Your task to perform on an android device: View the shopping cart on bestbuy.com. Search for razer nari on bestbuy.com, select the first entry, and add it to the cart. Image 0: 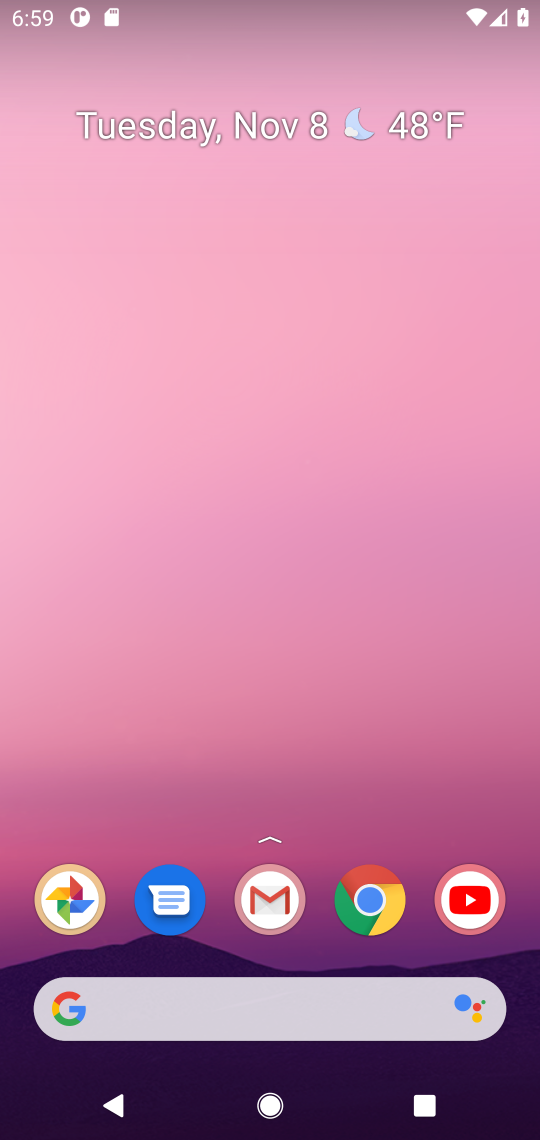
Step 0: drag from (234, 946) to (248, 94)
Your task to perform on an android device: View the shopping cart on bestbuy.com. Search for razer nari on bestbuy.com, select the first entry, and add it to the cart. Image 1: 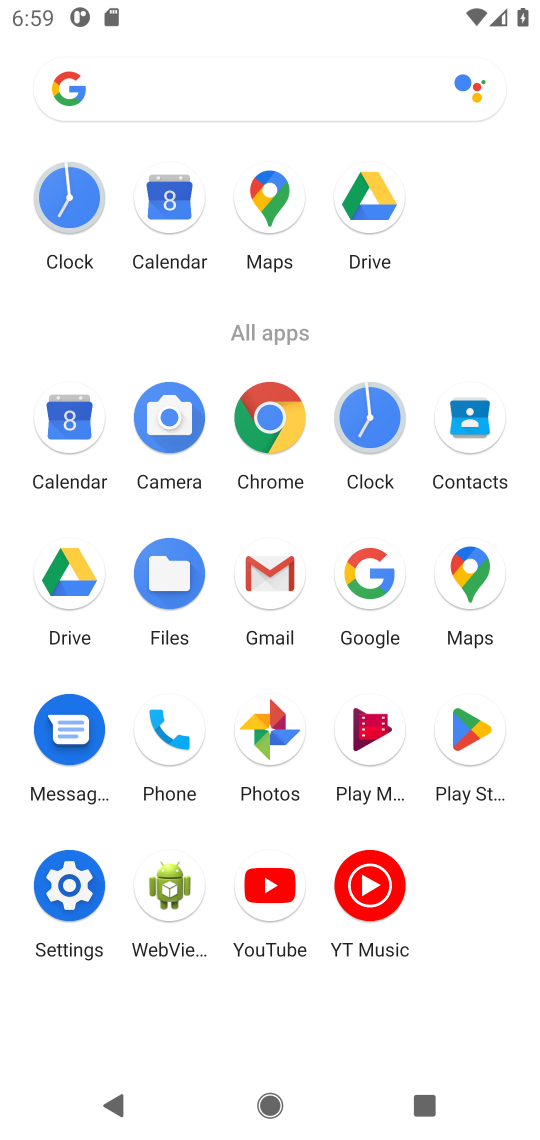
Step 1: click (363, 557)
Your task to perform on an android device: View the shopping cart on bestbuy.com. Search for razer nari on bestbuy.com, select the first entry, and add it to the cart. Image 2: 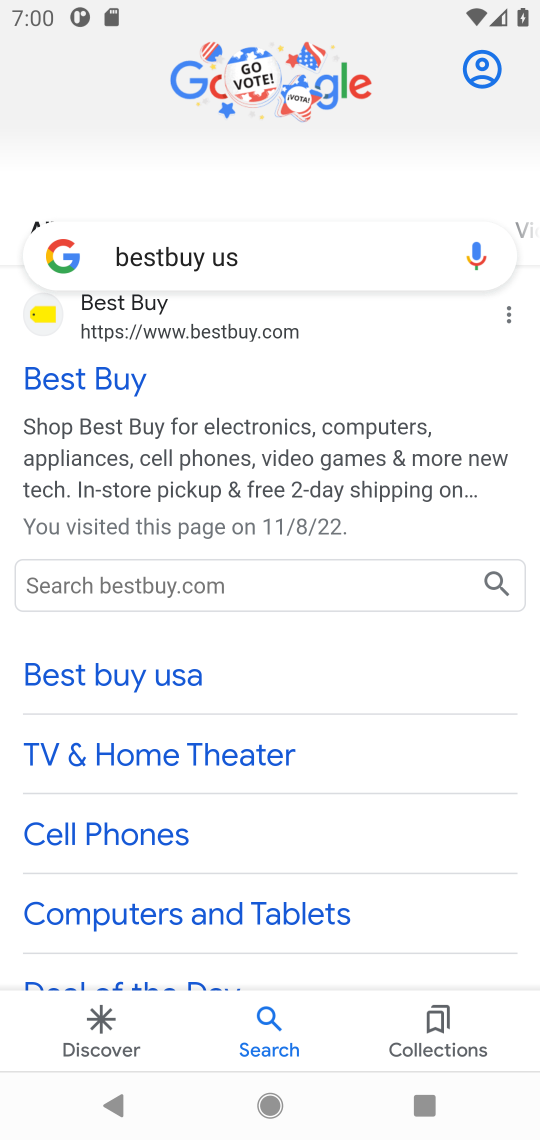
Step 2: click (53, 328)
Your task to perform on an android device: View the shopping cart on bestbuy.com. Search for razer nari on bestbuy.com, select the first entry, and add it to the cart. Image 3: 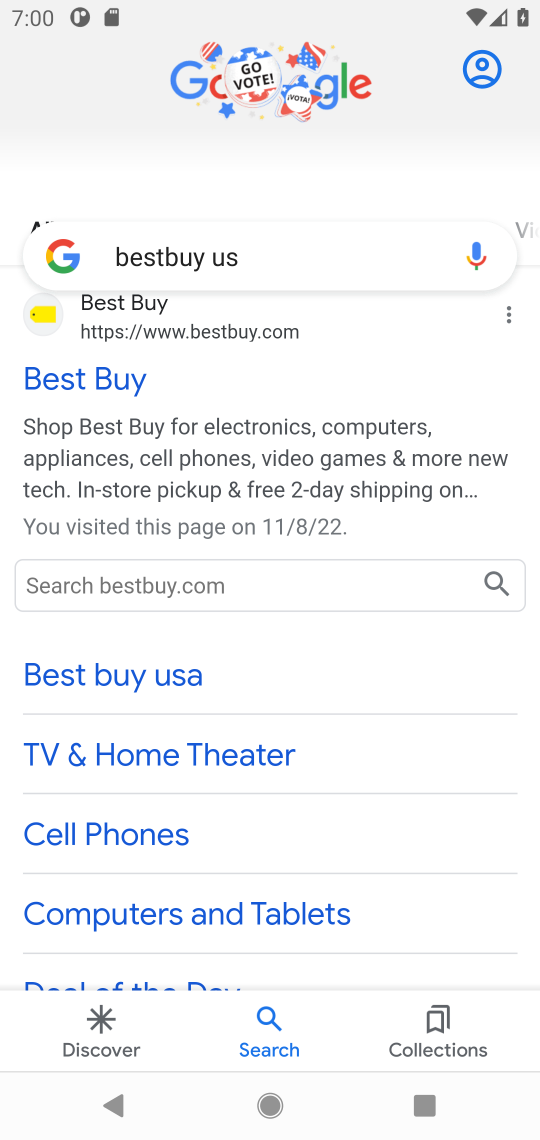
Step 3: click (47, 304)
Your task to perform on an android device: View the shopping cart on bestbuy.com. Search for razer nari on bestbuy.com, select the first entry, and add it to the cart. Image 4: 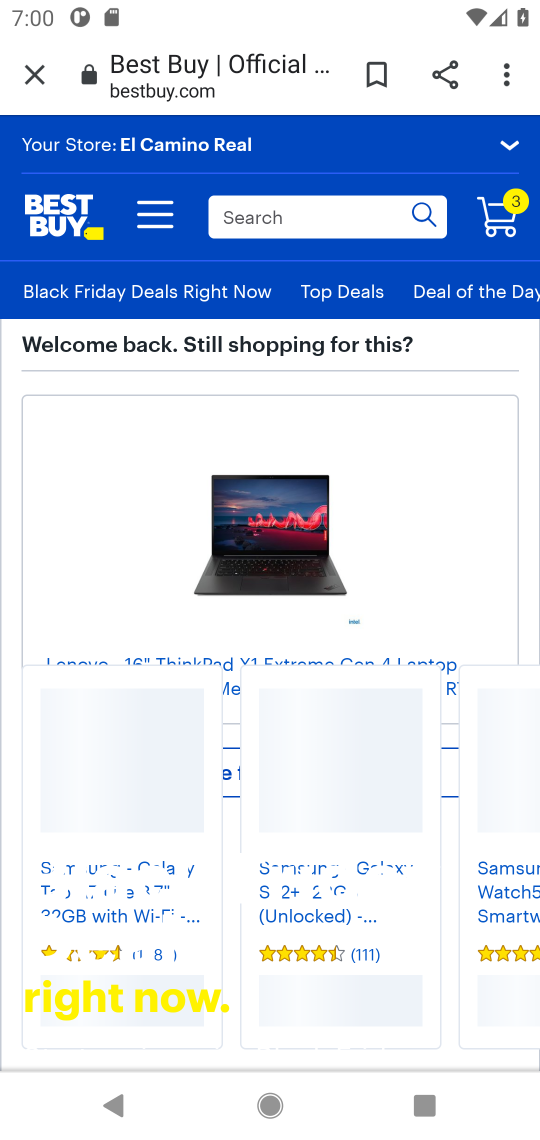
Step 4: click (337, 205)
Your task to perform on an android device: View the shopping cart on bestbuy.com. Search for razer nari on bestbuy.com, select the first entry, and add it to the cart. Image 5: 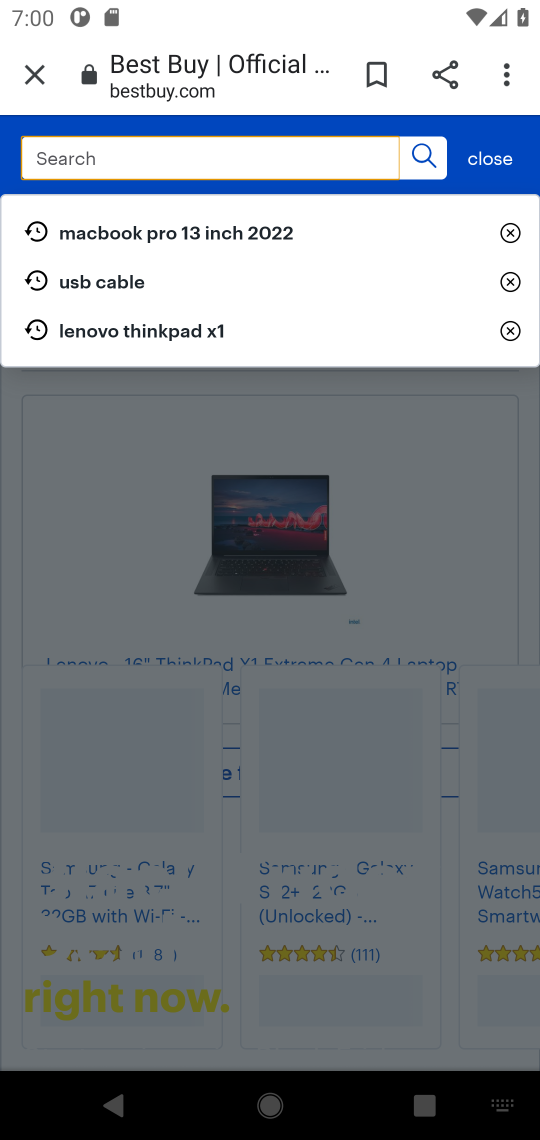
Step 5: type " razer nari "
Your task to perform on an android device: View the shopping cart on bestbuy.com. Search for razer nari on bestbuy.com, select the first entry, and add it to the cart. Image 6: 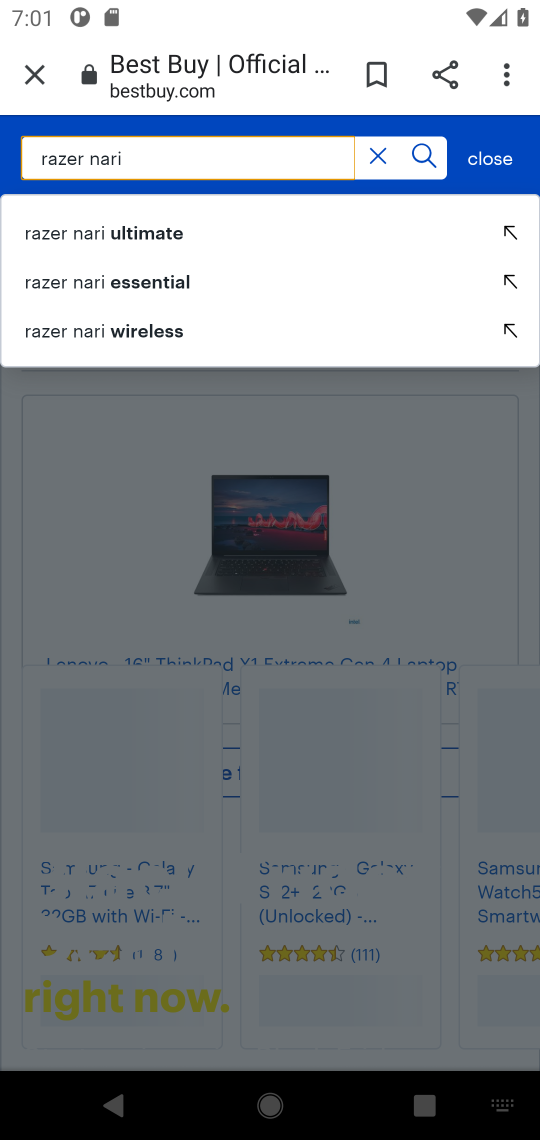
Step 6: click (140, 322)
Your task to perform on an android device: View the shopping cart on bestbuy.com. Search for razer nari on bestbuy.com, select the first entry, and add it to the cart. Image 7: 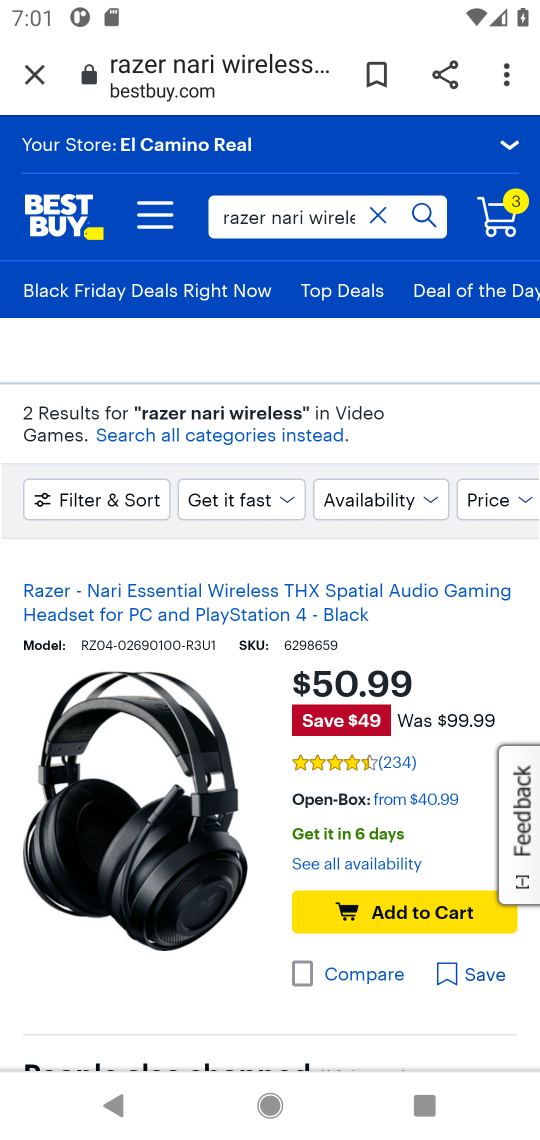
Step 7: click (371, 911)
Your task to perform on an android device: View the shopping cart on bestbuy.com. Search for razer nari on bestbuy.com, select the first entry, and add it to the cart. Image 8: 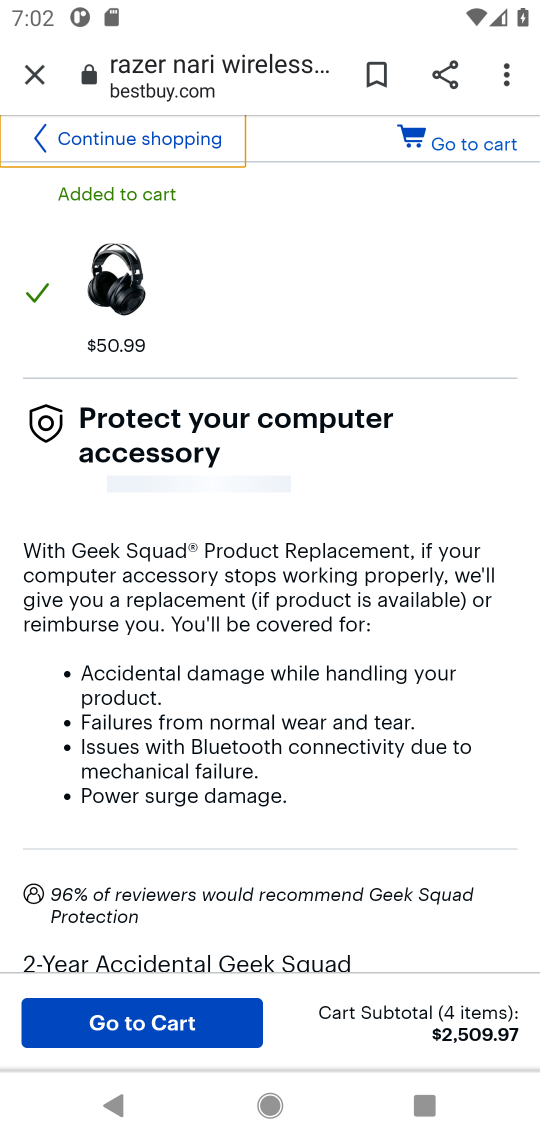
Step 8: task complete